Your task to perform on an android device: find snoozed emails in the gmail app Image 0: 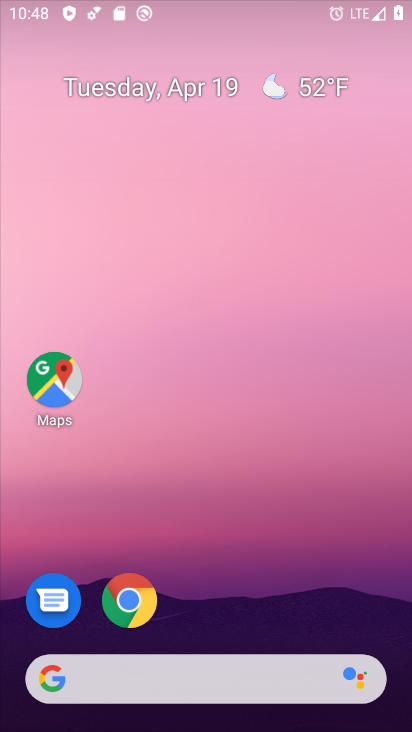
Step 0: click (193, 90)
Your task to perform on an android device: find snoozed emails in the gmail app Image 1: 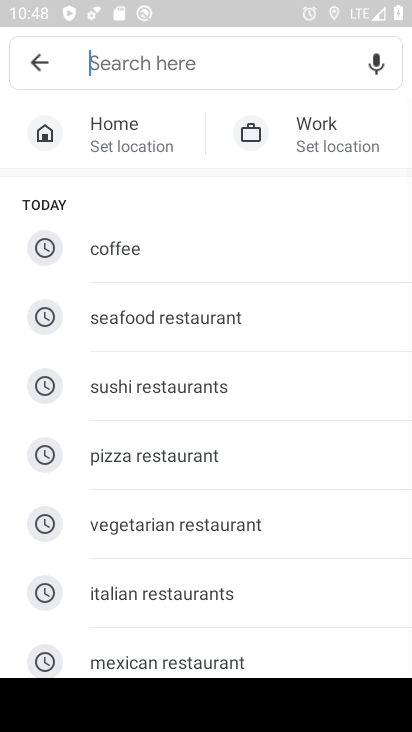
Step 1: press home button
Your task to perform on an android device: find snoozed emails in the gmail app Image 2: 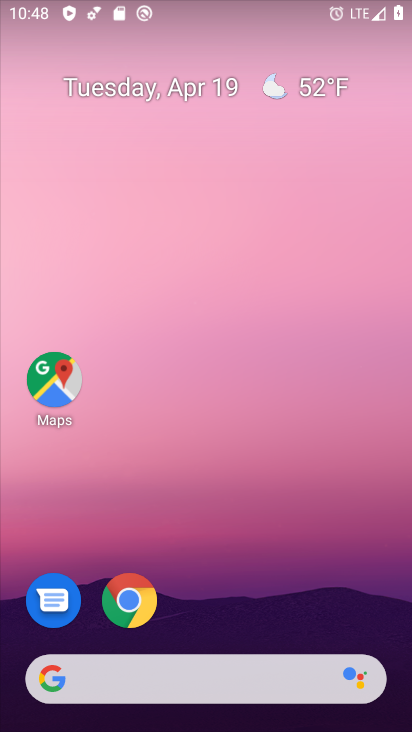
Step 2: drag from (237, 650) to (162, 84)
Your task to perform on an android device: find snoozed emails in the gmail app Image 3: 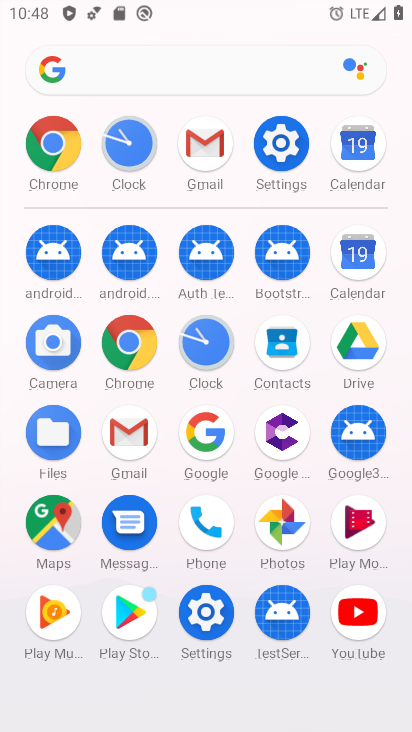
Step 3: click (137, 448)
Your task to perform on an android device: find snoozed emails in the gmail app Image 4: 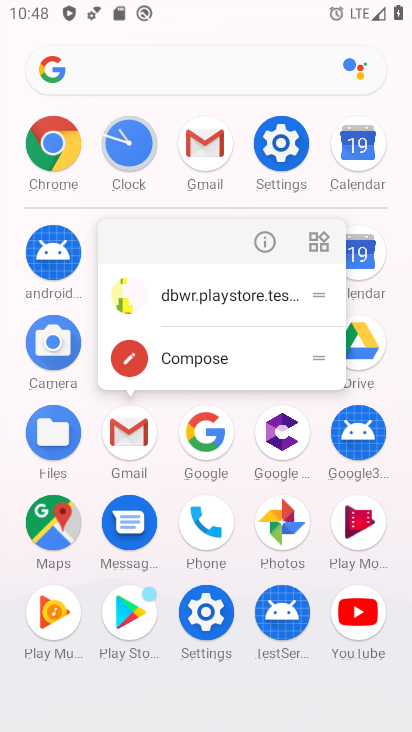
Step 4: click (124, 433)
Your task to perform on an android device: find snoozed emails in the gmail app Image 5: 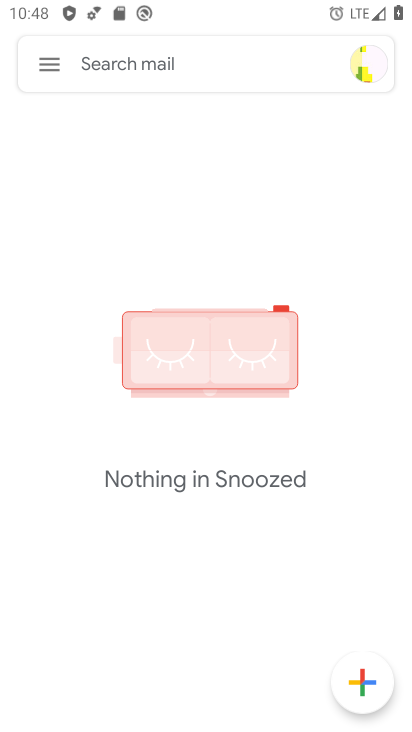
Step 5: click (34, 69)
Your task to perform on an android device: find snoozed emails in the gmail app Image 6: 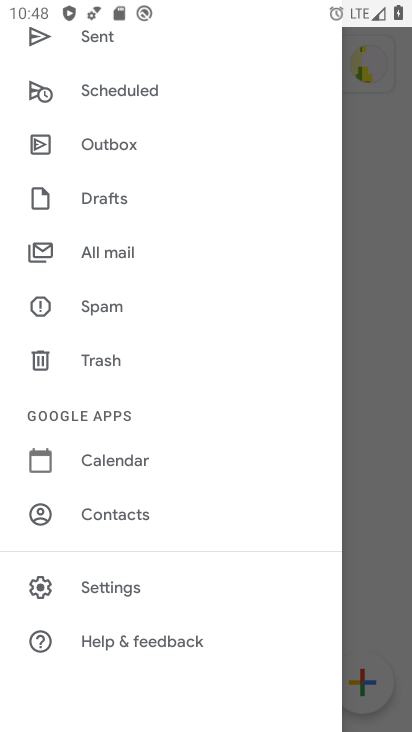
Step 6: drag from (132, 201) to (106, 545)
Your task to perform on an android device: find snoozed emails in the gmail app Image 7: 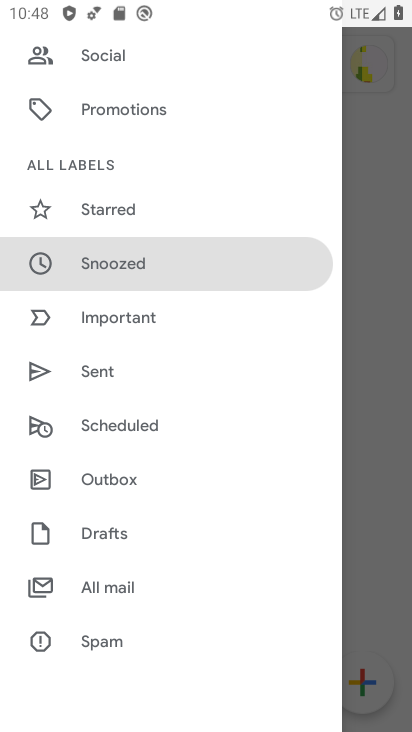
Step 7: click (125, 262)
Your task to perform on an android device: find snoozed emails in the gmail app Image 8: 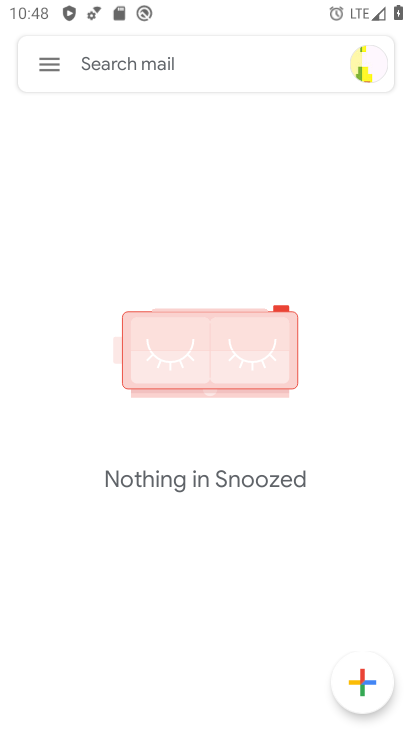
Step 8: task complete